Your task to perform on an android device: toggle notifications settings in the gmail app Image 0: 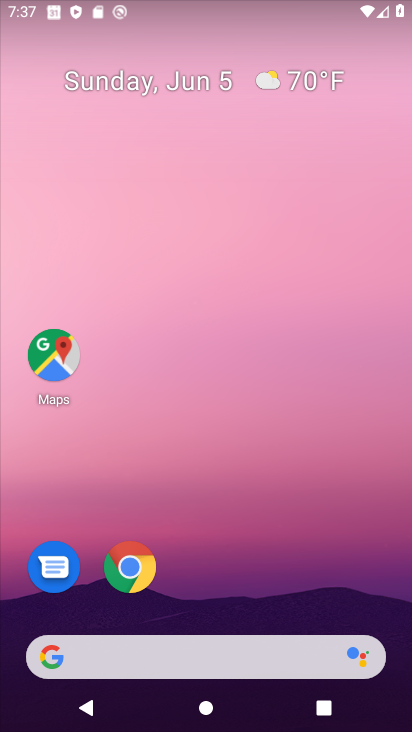
Step 0: drag from (202, 606) to (252, 135)
Your task to perform on an android device: toggle notifications settings in the gmail app Image 1: 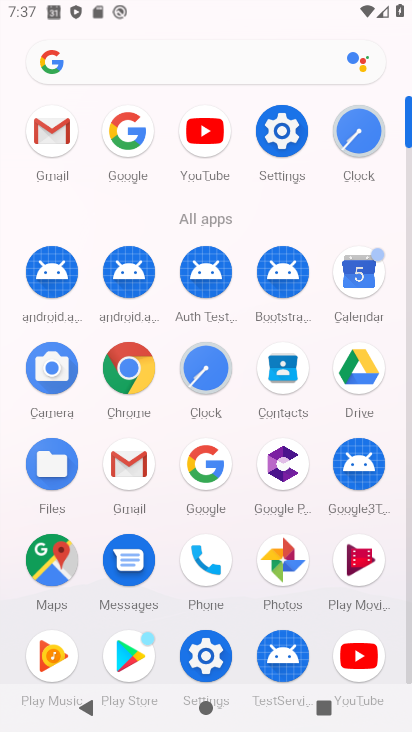
Step 1: click (42, 134)
Your task to perform on an android device: toggle notifications settings in the gmail app Image 2: 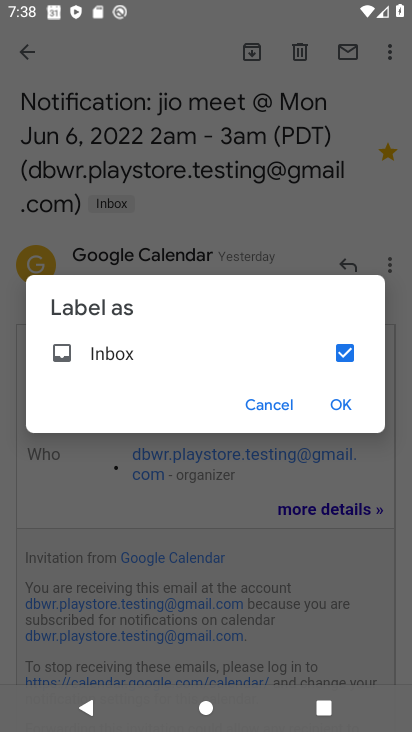
Step 2: click (256, 410)
Your task to perform on an android device: toggle notifications settings in the gmail app Image 3: 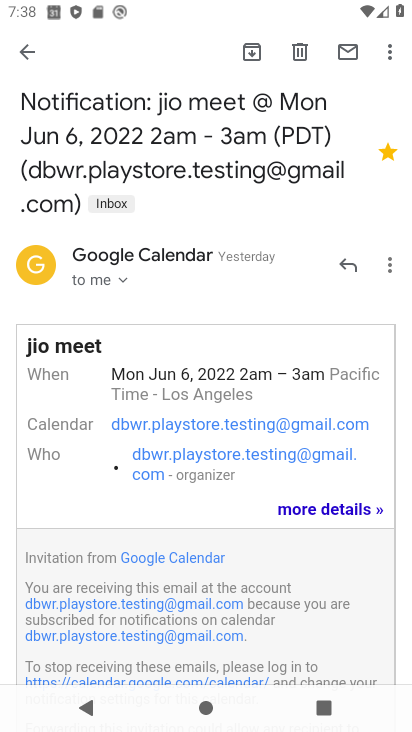
Step 3: click (14, 55)
Your task to perform on an android device: toggle notifications settings in the gmail app Image 4: 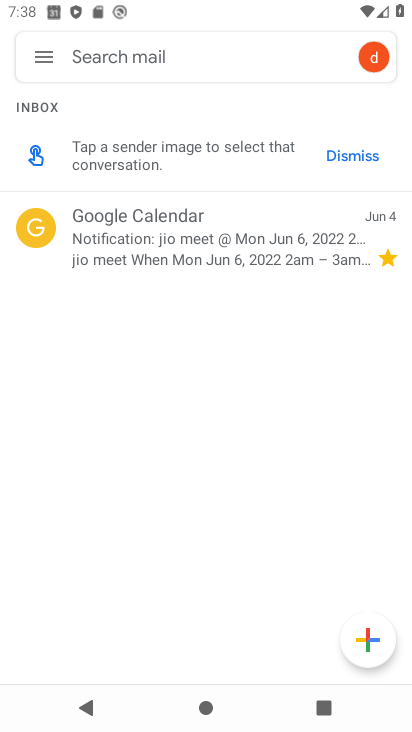
Step 4: click (37, 66)
Your task to perform on an android device: toggle notifications settings in the gmail app Image 5: 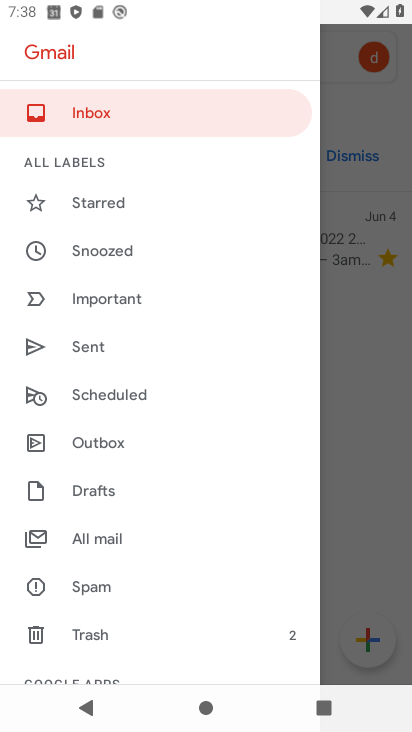
Step 5: drag from (124, 624) to (156, 242)
Your task to perform on an android device: toggle notifications settings in the gmail app Image 6: 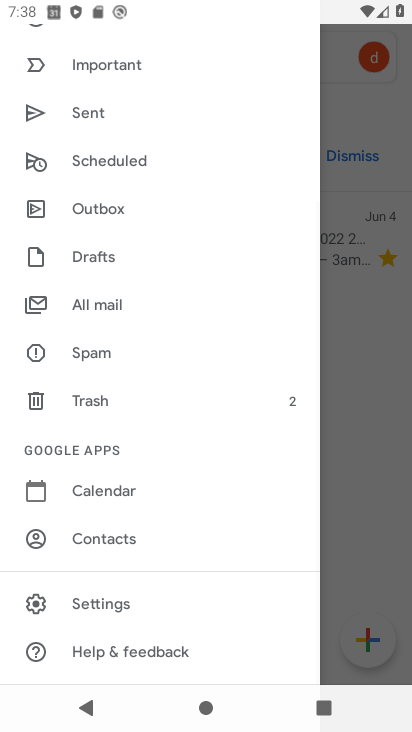
Step 6: click (98, 607)
Your task to perform on an android device: toggle notifications settings in the gmail app Image 7: 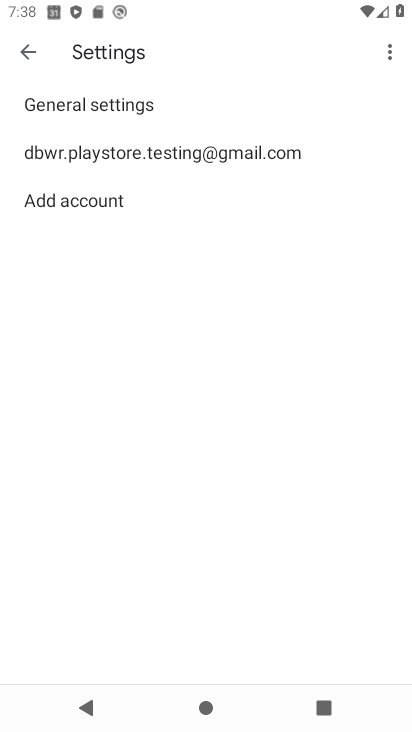
Step 7: click (194, 144)
Your task to perform on an android device: toggle notifications settings in the gmail app Image 8: 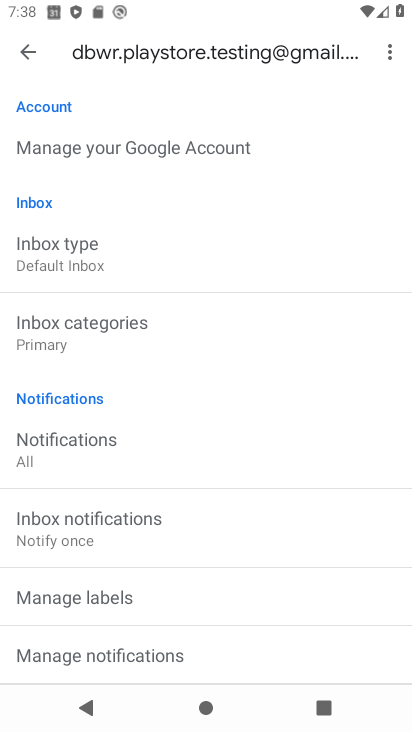
Step 8: click (114, 659)
Your task to perform on an android device: toggle notifications settings in the gmail app Image 9: 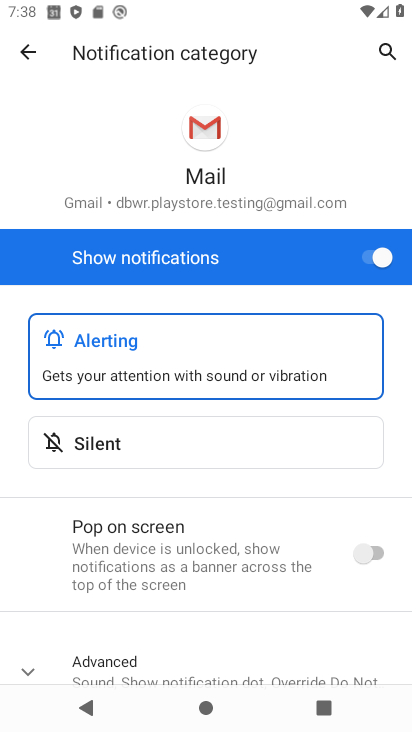
Step 9: click (361, 272)
Your task to perform on an android device: toggle notifications settings in the gmail app Image 10: 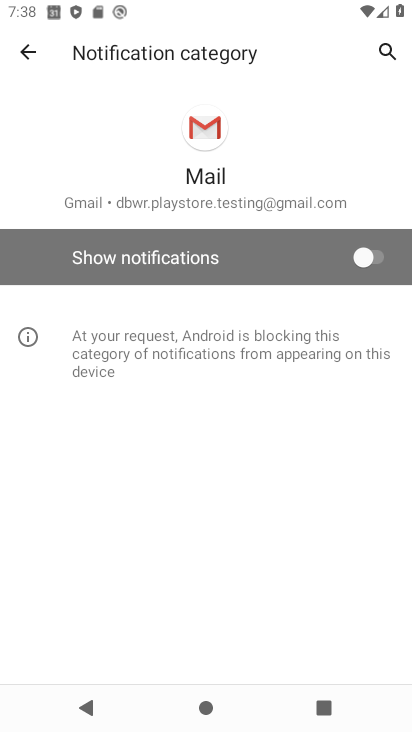
Step 10: task complete